Your task to perform on an android device: Do I have any events tomorrow? Image 0: 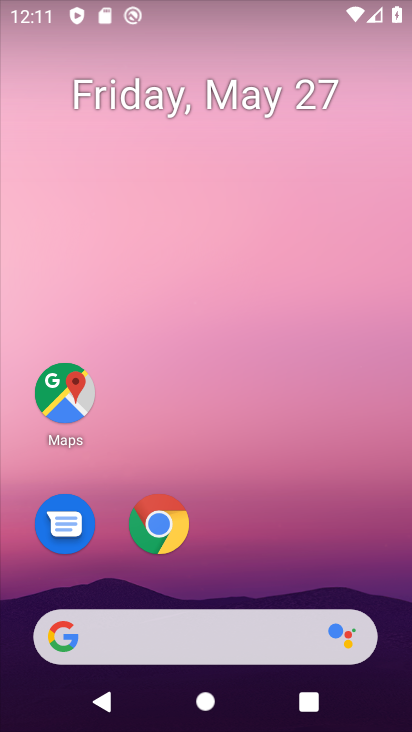
Step 0: drag from (276, 535) to (236, 105)
Your task to perform on an android device: Do I have any events tomorrow? Image 1: 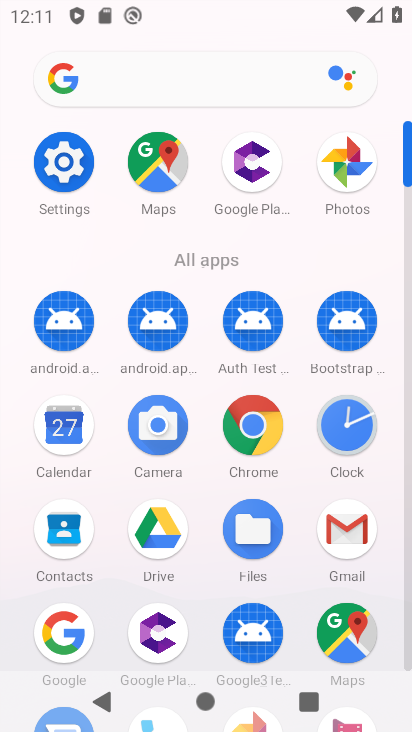
Step 1: click (64, 425)
Your task to perform on an android device: Do I have any events tomorrow? Image 2: 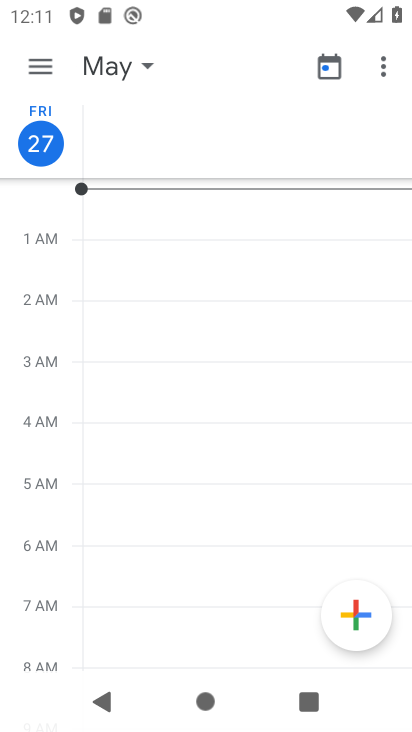
Step 2: click (34, 143)
Your task to perform on an android device: Do I have any events tomorrow? Image 3: 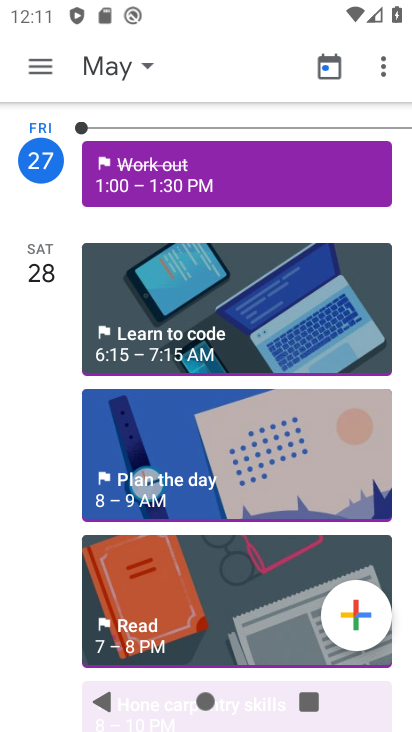
Step 3: task complete